Your task to perform on an android device: Open Google Image 0: 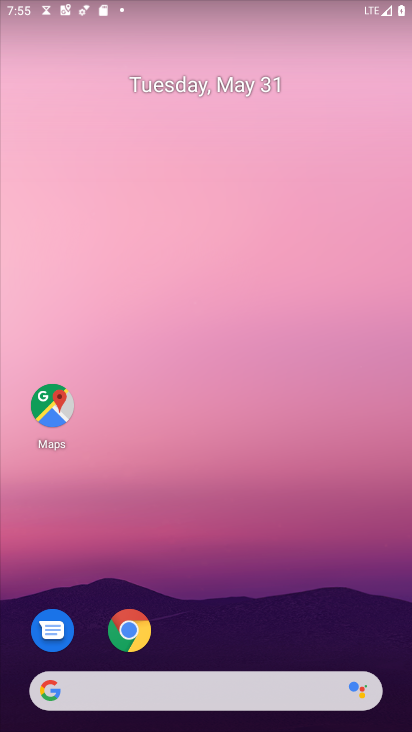
Step 0: drag from (213, 570) to (261, 279)
Your task to perform on an android device: Open Google Image 1: 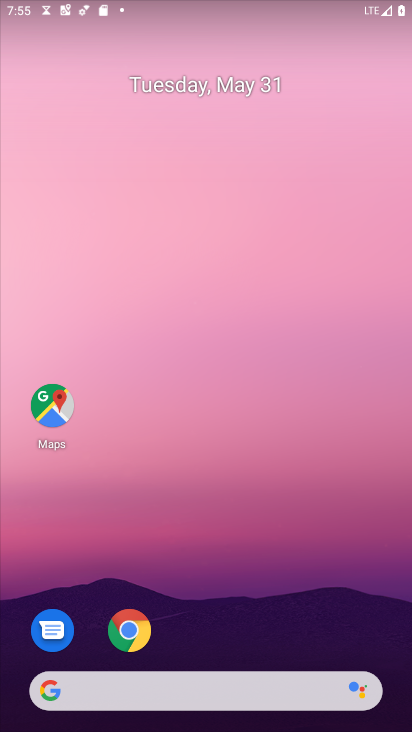
Step 1: drag from (242, 579) to (234, 103)
Your task to perform on an android device: Open Google Image 2: 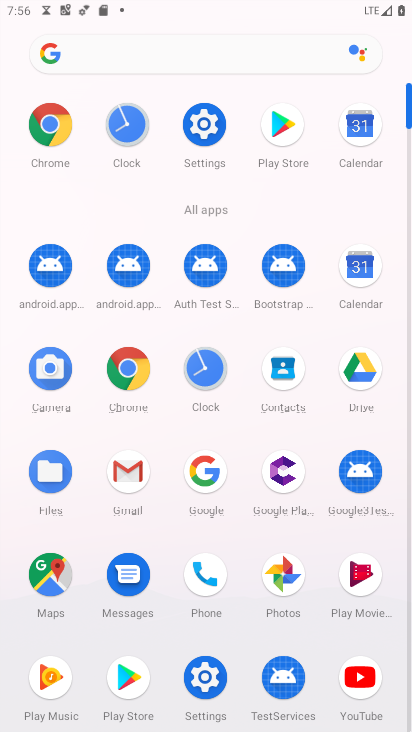
Step 2: click (200, 470)
Your task to perform on an android device: Open Google Image 3: 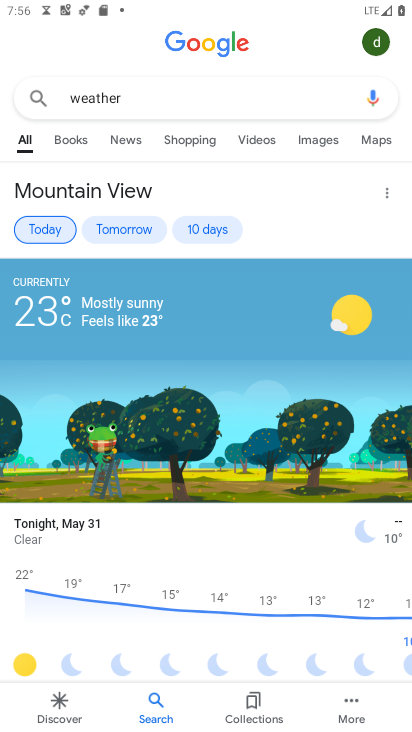
Step 3: task complete